Your task to perform on an android device: turn on translation in the chrome app Image 0: 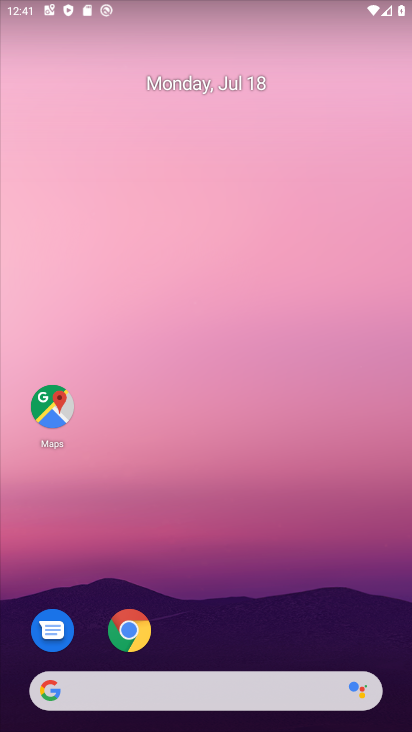
Step 0: click (135, 624)
Your task to perform on an android device: turn on translation in the chrome app Image 1: 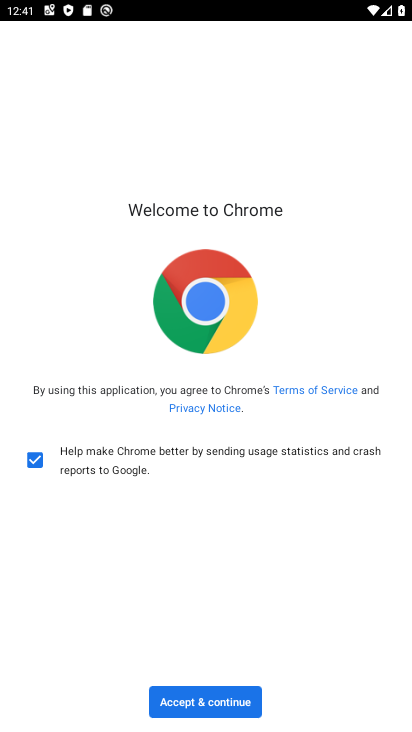
Step 1: click (196, 699)
Your task to perform on an android device: turn on translation in the chrome app Image 2: 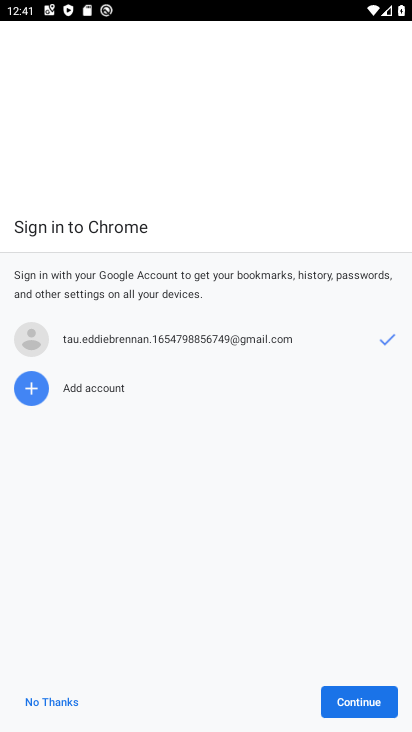
Step 2: click (355, 711)
Your task to perform on an android device: turn on translation in the chrome app Image 3: 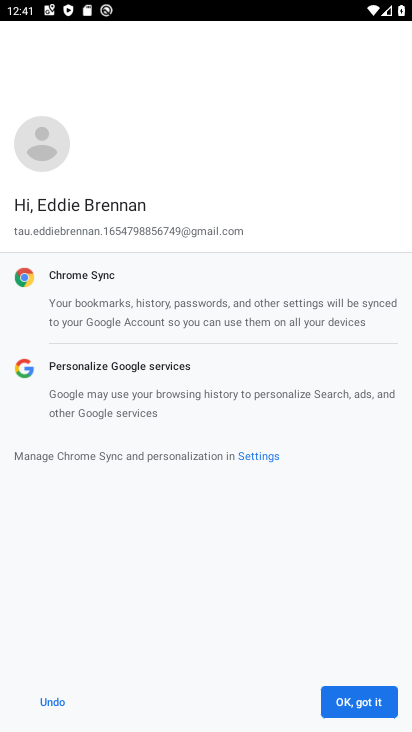
Step 3: click (355, 711)
Your task to perform on an android device: turn on translation in the chrome app Image 4: 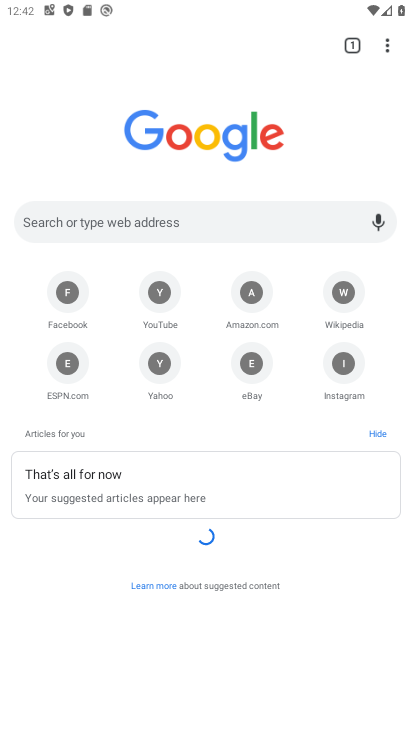
Step 4: click (396, 43)
Your task to perform on an android device: turn on translation in the chrome app Image 5: 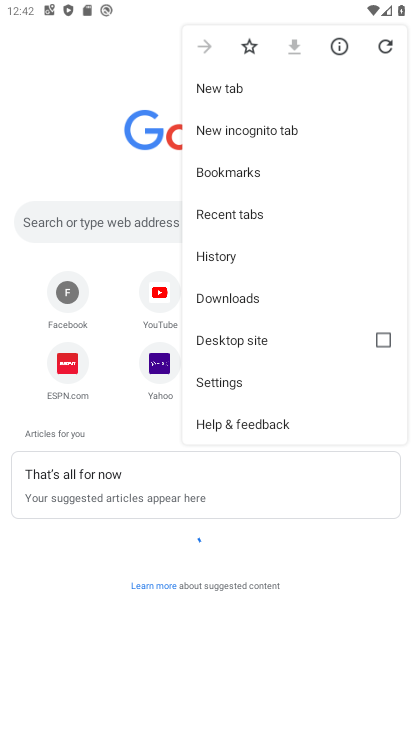
Step 5: click (266, 382)
Your task to perform on an android device: turn on translation in the chrome app Image 6: 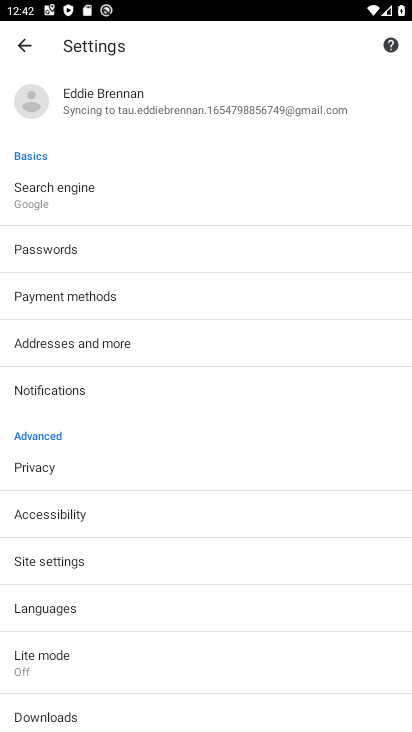
Step 6: click (159, 610)
Your task to perform on an android device: turn on translation in the chrome app Image 7: 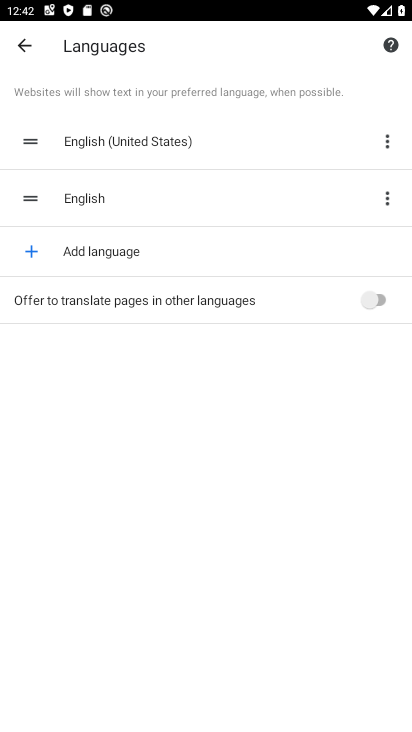
Step 7: click (380, 301)
Your task to perform on an android device: turn on translation in the chrome app Image 8: 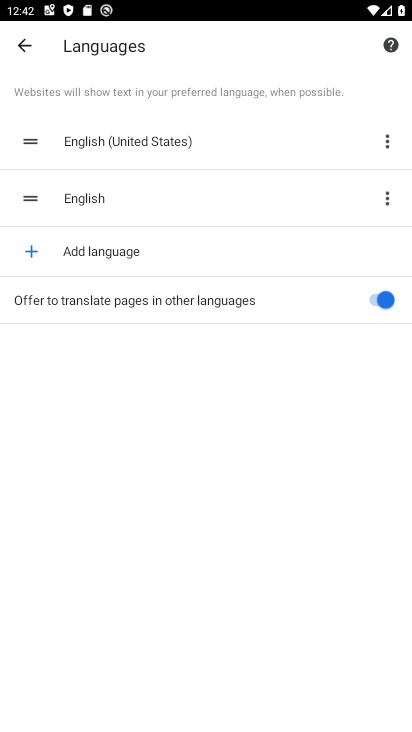
Step 8: task complete